Your task to perform on an android device: change the clock display to show seconds Image 0: 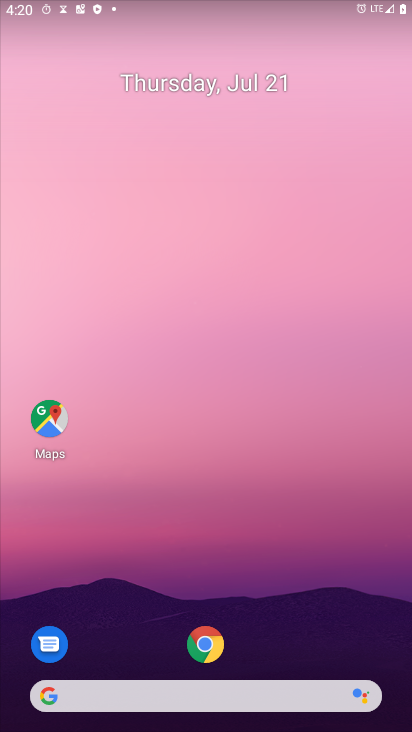
Step 0: drag from (308, 629) to (350, 32)
Your task to perform on an android device: change the clock display to show seconds Image 1: 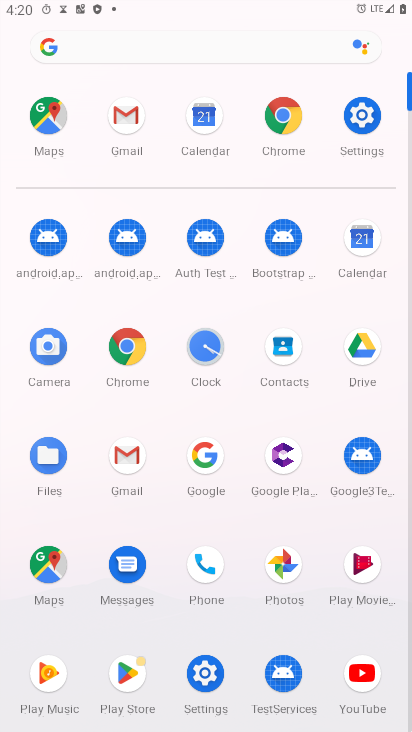
Step 1: click (206, 350)
Your task to perform on an android device: change the clock display to show seconds Image 2: 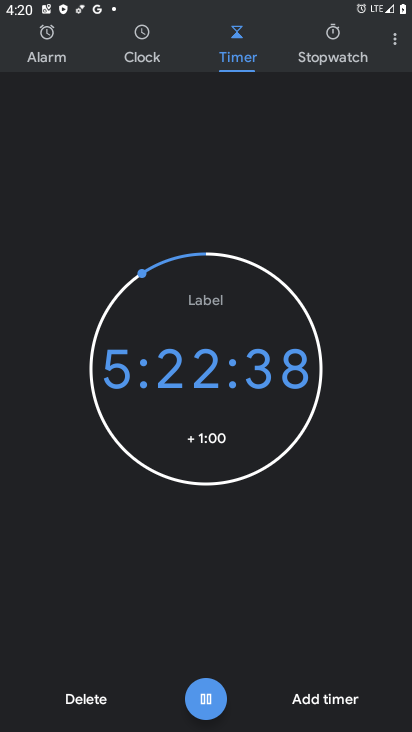
Step 2: click (387, 45)
Your task to perform on an android device: change the clock display to show seconds Image 3: 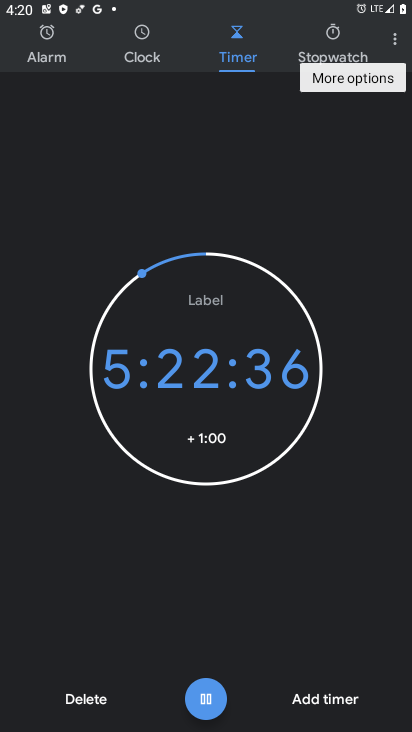
Step 3: click (393, 49)
Your task to perform on an android device: change the clock display to show seconds Image 4: 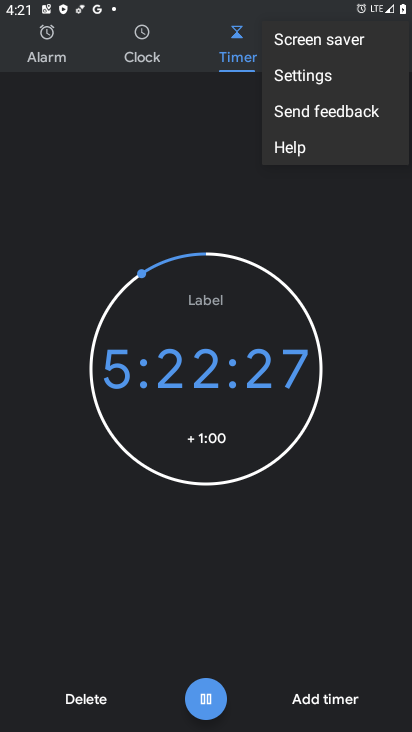
Step 4: click (318, 78)
Your task to perform on an android device: change the clock display to show seconds Image 5: 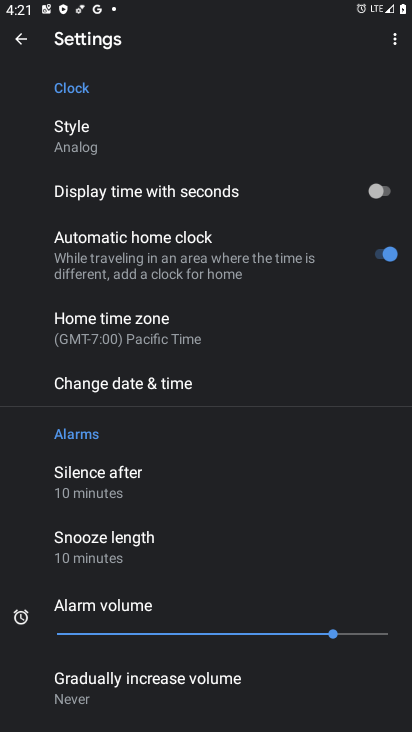
Step 5: click (380, 197)
Your task to perform on an android device: change the clock display to show seconds Image 6: 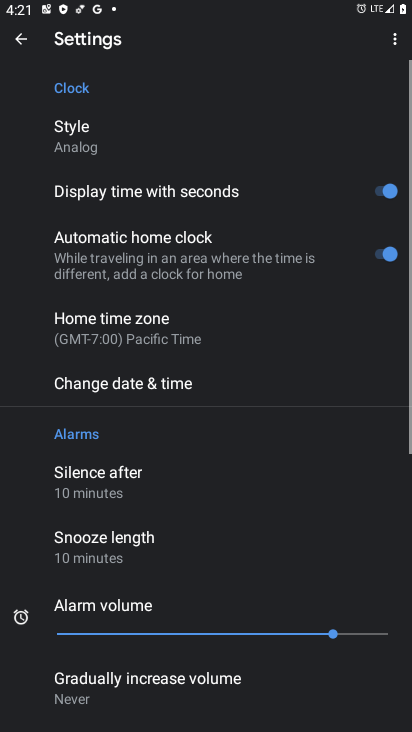
Step 6: task complete